Your task to perform on an android device: Search for vegetarian restaurants on Maps Image 0: 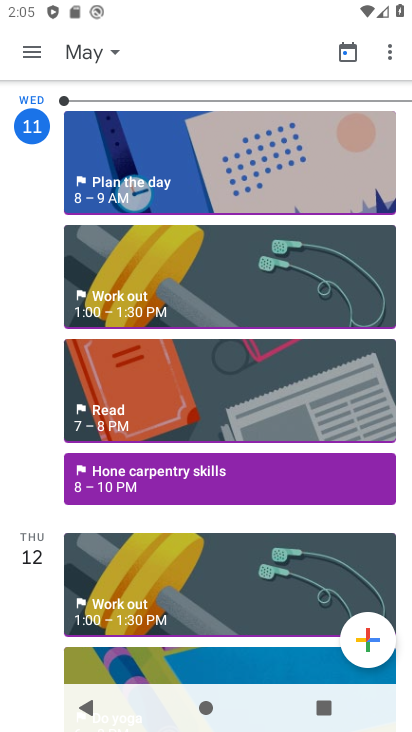
Step 0: press home button
Your task to perform on an android device: Search for vegetarian restaurants on Maps Image 1: 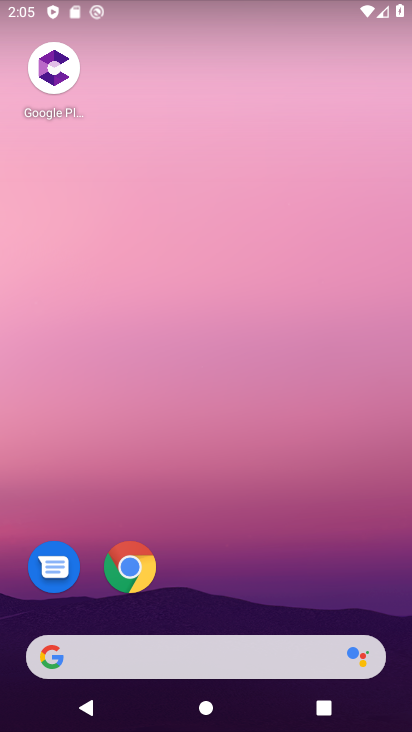
Step 1: drag from (236, 606) to (236, 255)
Your task to perform on an android device: Search for vegetarian restaurants on Maps Image 2: 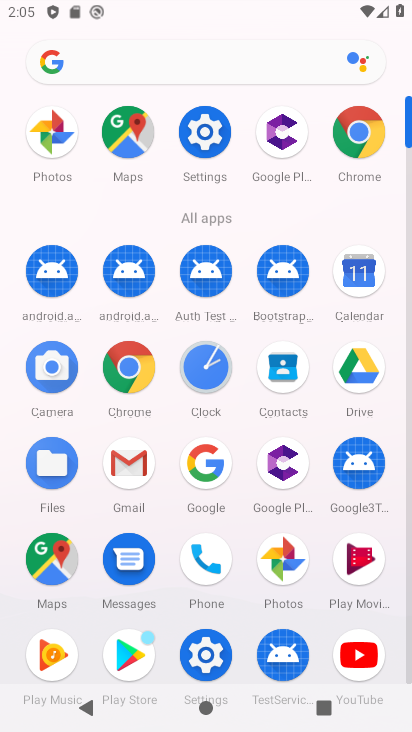
Step 2: click (57, 588)
Your task to perform on an android device: Search for vegetarian restaurants on Maps Image 3: 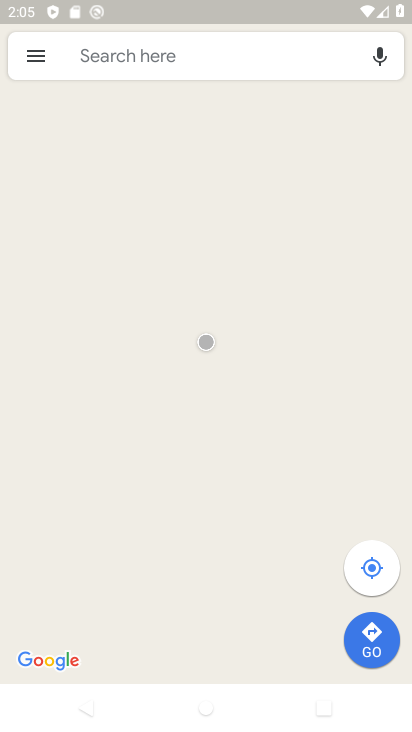
Step 3: click (193, 72)
Your task to perform on an android device: Search for vegetarian restaurants on Maps Image 4: 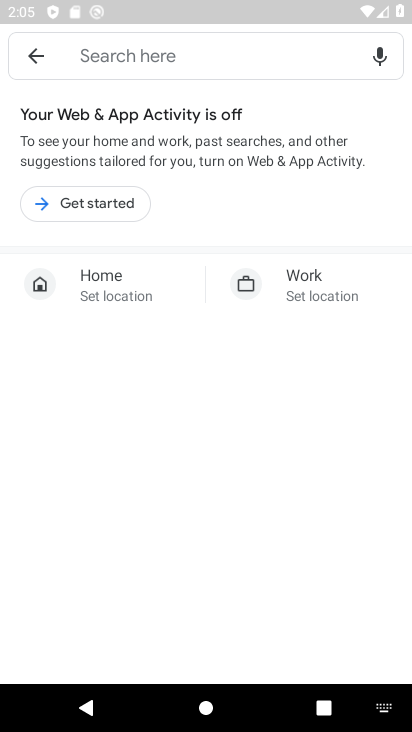
Step 4: click (164, 53)
Your task to perform on an android device: Search for vegetarian restaurants on Maps Image 5: 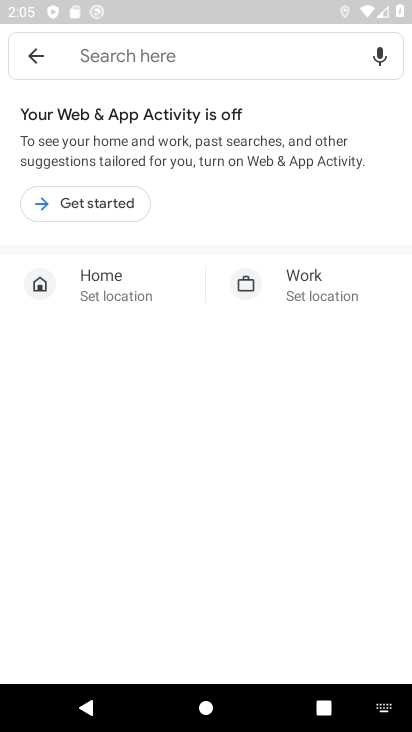
Step 5: click (35, 58)
Your task to perform on an android device: Search for vegetarian restaurants on Maps Image 6: 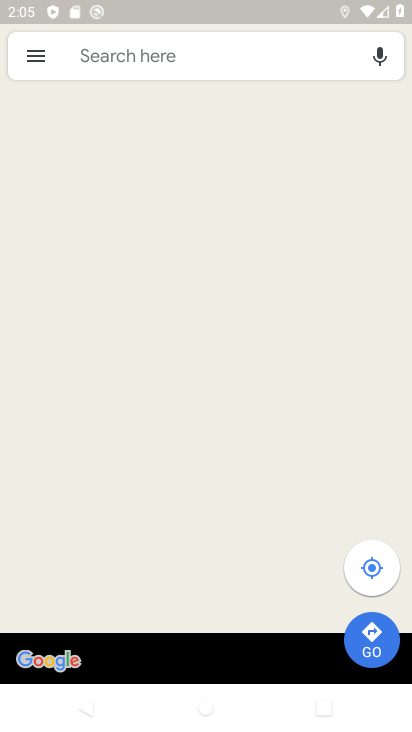
Step 6: click (146, 66)
Your task to perform on an android device: Search for vegetarian restaurants on Maps Image 7: 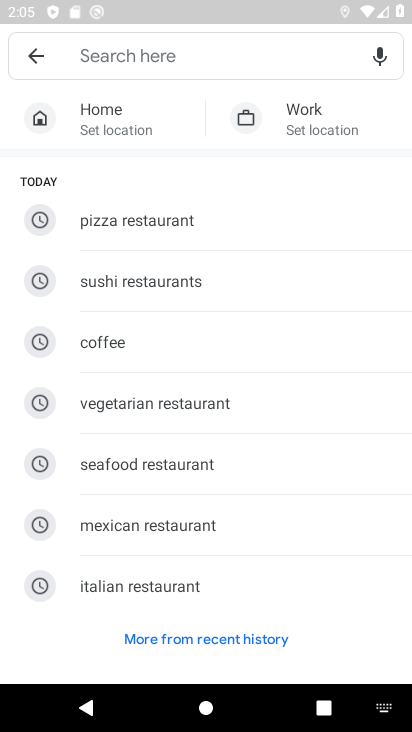
Step 7: click (178, 60)
Your task to perform on an android device: Search for vegetarian restaurants on Maps Image 8: 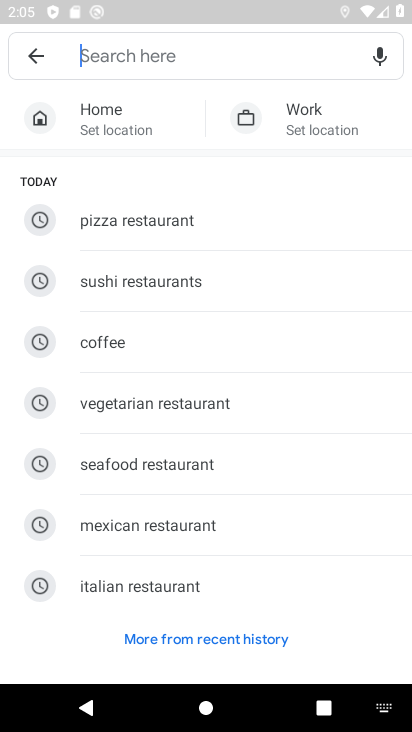
Step 8: click (156, 416)
Your task to perform on an android device: Search for vegetarian restaurants on Maps Image 9: 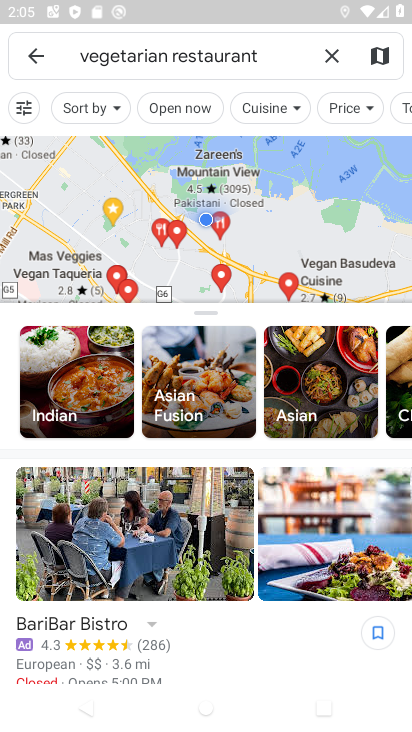
Step 9: task complete